Your task to perform on an android device: check battery use Image 0: 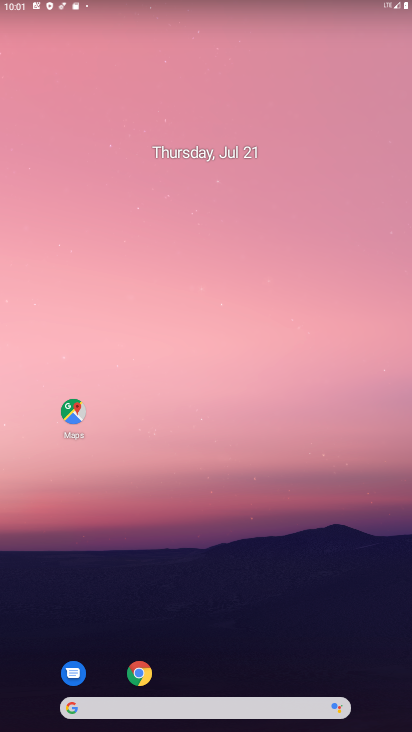
Step 0: drag from (197, 463) to (199, 43)
Your task to perform on an android device: check battery use Image 1: 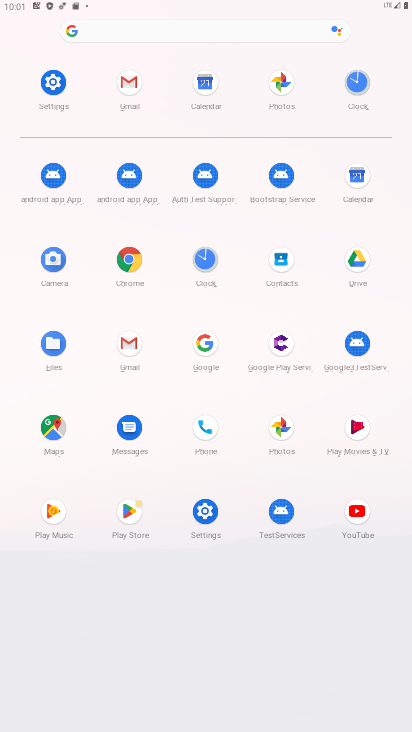
Step 1: click (59, 87)
Your task to perform on an android device: check battery use Image 2: 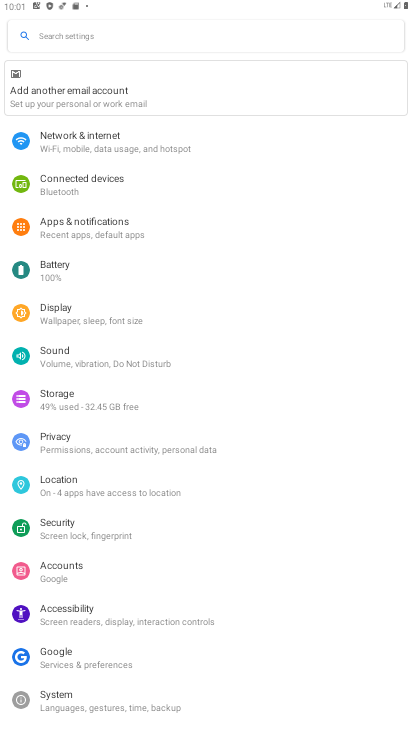
Step 2: click (76, 282)
Your task to perform on an android device: check battery use Image 3: 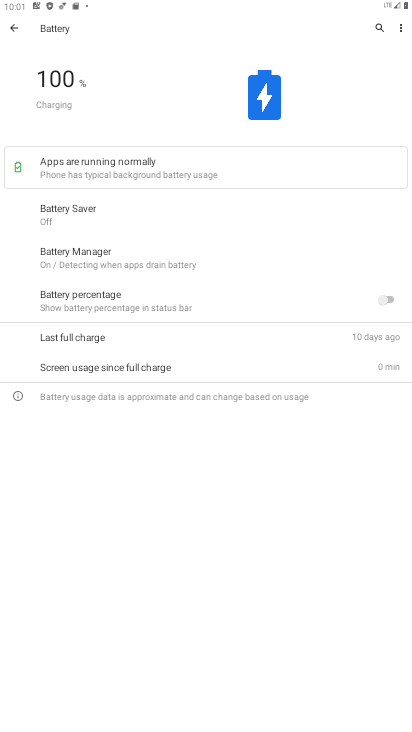
Step 3: click (400, 30)
Your task to perform on an android device: check battery use Image 4: 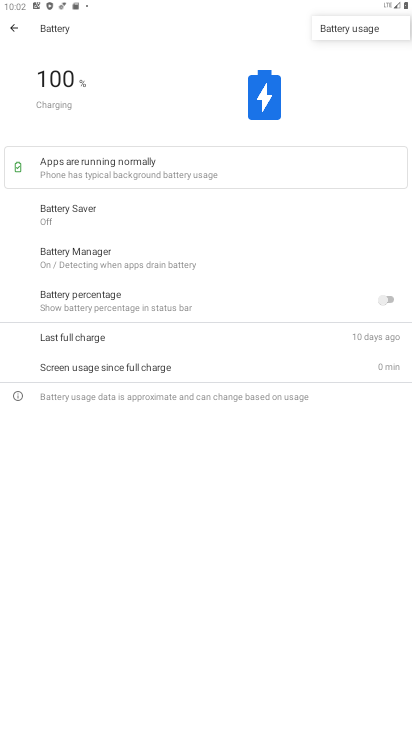
Step 4: click (358, 35)
Your task to perform on an android device: check battery use Image 5: 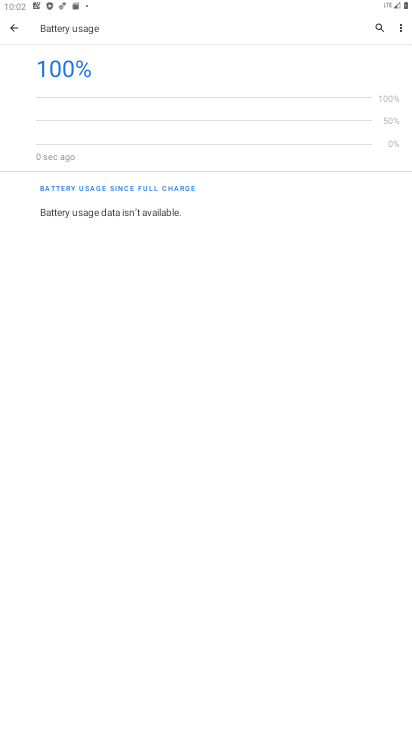
Step 5: task complete